Your task to perform on an android device: read, delete, or share a saved page in the chrome app Image 0: 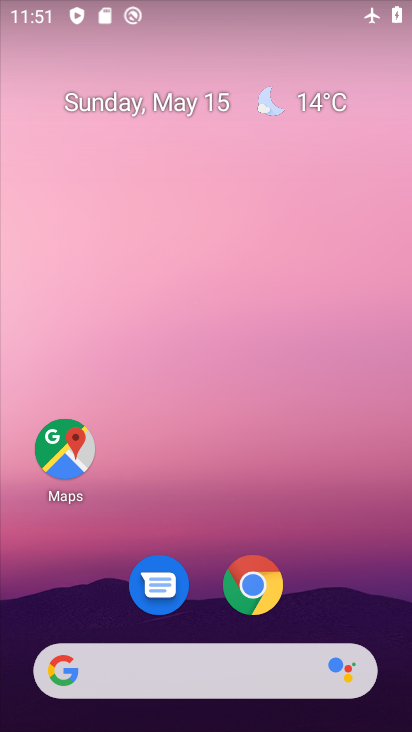
Step 0: click (262, 588)
Your task to perform on an android device: read, delete, or share a saved page in the chrome app Image 1: 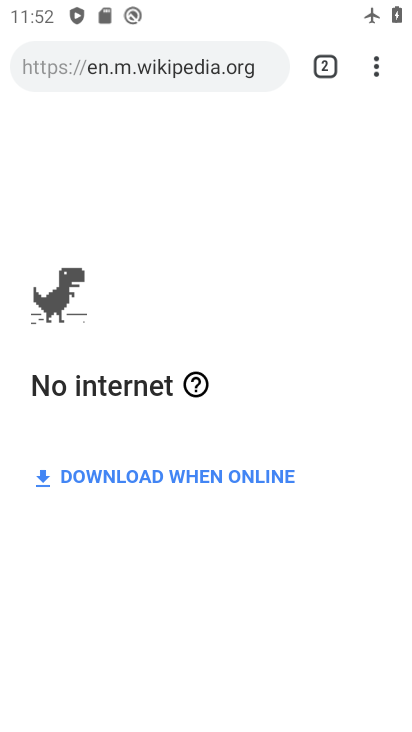
Step 1: click (374, 67)
Your task to perform on an android device: read, delete, or share a saved page in the chrome app Image 2: 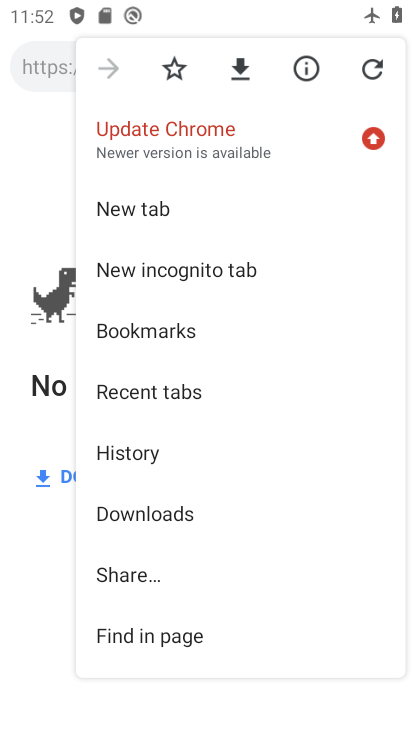
Step 2: click (184, 513)
Your task to perform on an android device: read, delete, or share a saved page in the chrome app Image 3: 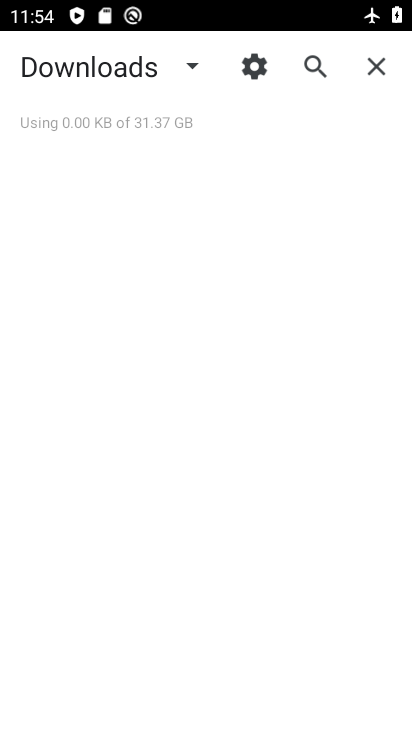
Step 3: task complete